Your task to perform on an android device: open the mobile data screen to see how much data has been used Image 0: 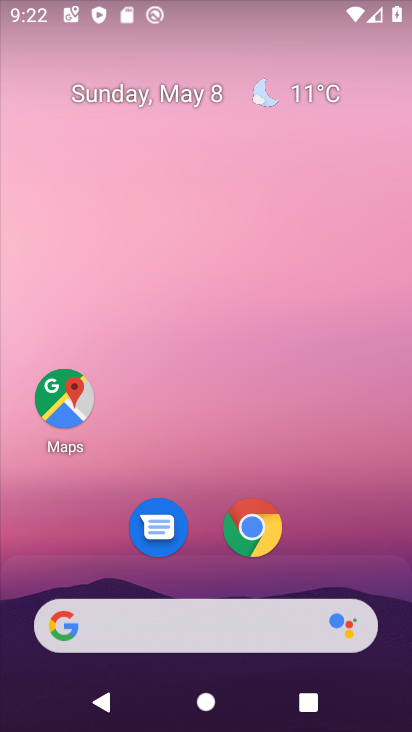
Step 0: drag from (324, 567) to (289, 41)
Your task to perform on an android device: open the mobile data screen to see how much data has been used Image 1: 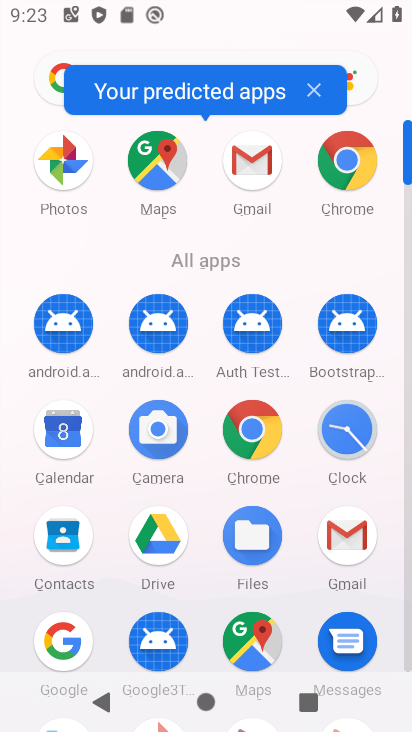
Step 1: drag from (291, 624) to (285, 259)
Your task to perform on an android device: open the mobile data screen to see how much data has been used Image 2: 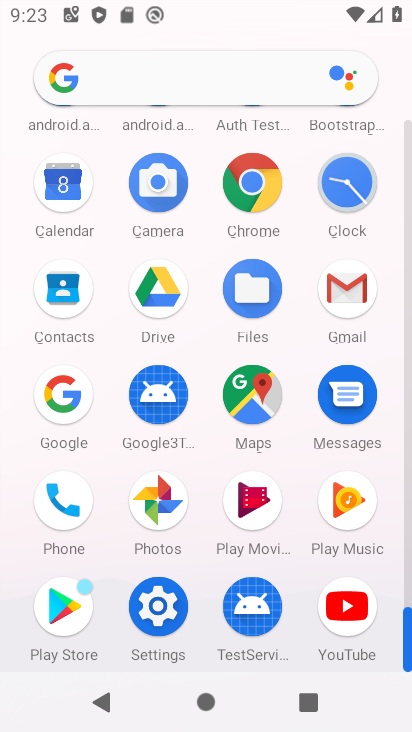
Step 2: drag from (377, 544) to (376, 225)
Your task to perform on an android device: open the mobile data screen to see how much data has been used Image 3: 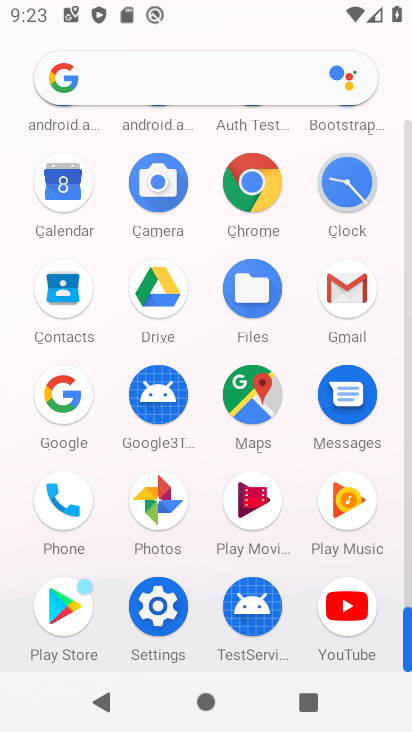
Step 3: drag from (381, 205) to (334, 132)
Your task to perform on an android device: open the mobile data screen to see how much data has been used Image 4: 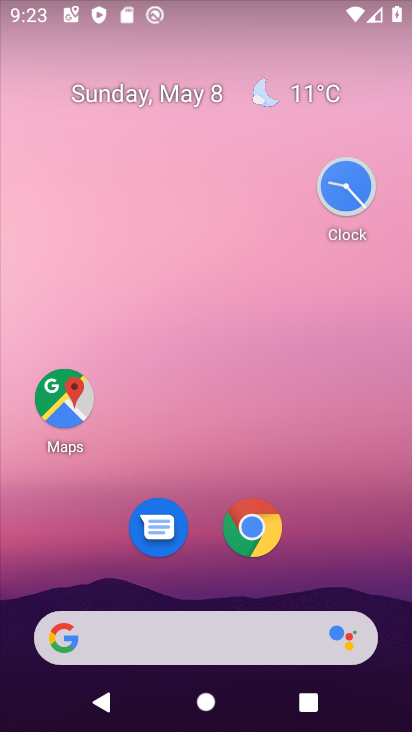
Step 4: drag from (256, 663) to (245, 156)
Your task to perform on an android device: open the mobile data screen to see how much data has been used Image 5: 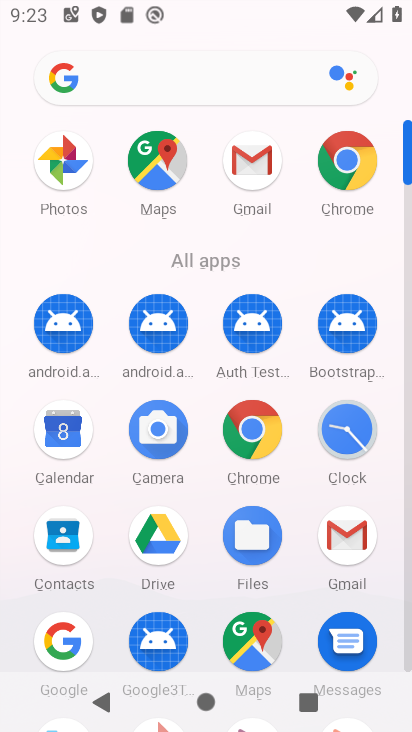
Step 5: drag from (288, 560) to (307, 167)
Your task to perform on an android device: open the mobile data screen to see how much data has been used Image 6: 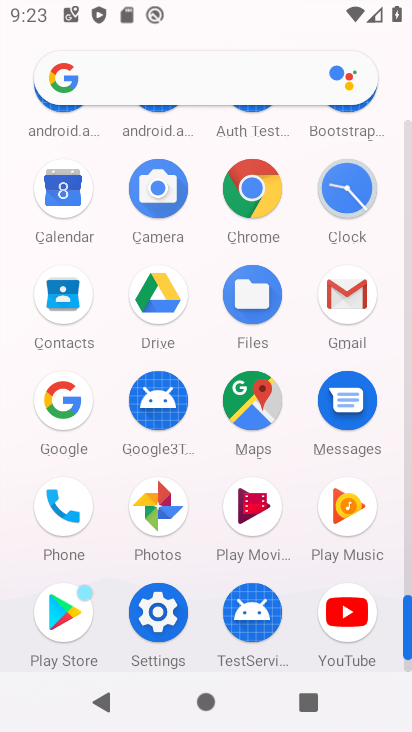
Step 6: click (170, 613)
Your task to perform on an android device: open the mobile data screen to see how much data has been used Image 7: 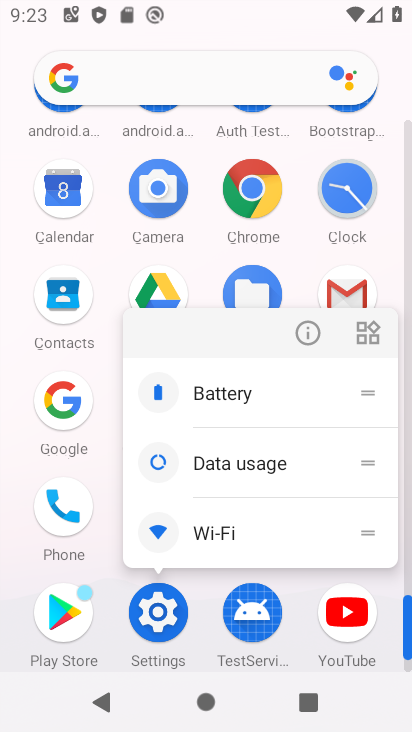
Step 7: click (161, 617)
Your task to perform on an android device: open the mobile data screen to see how much data has been used Image 8: 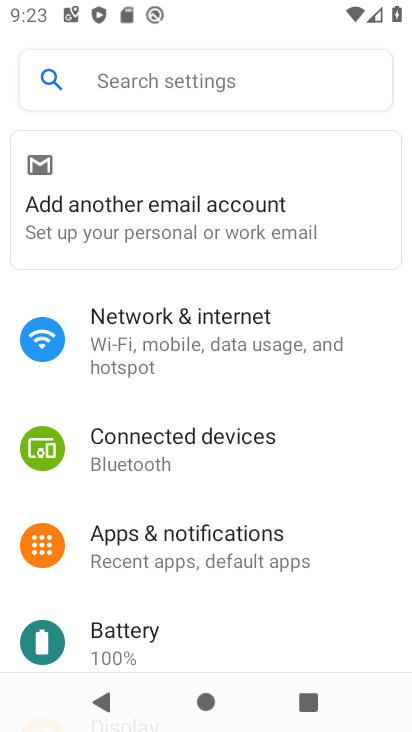
Step 8: click (217, 341)
Your task to perform on an android device: open the mobile data screen to see how much data has been used Image 9: 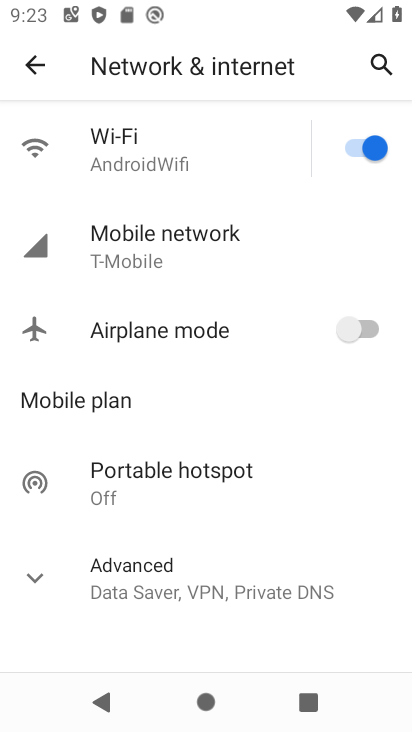
Step 9: click (145, 245)
Your task to perform on an android device: open the mobile data screen to see how much data has been used Image 10: 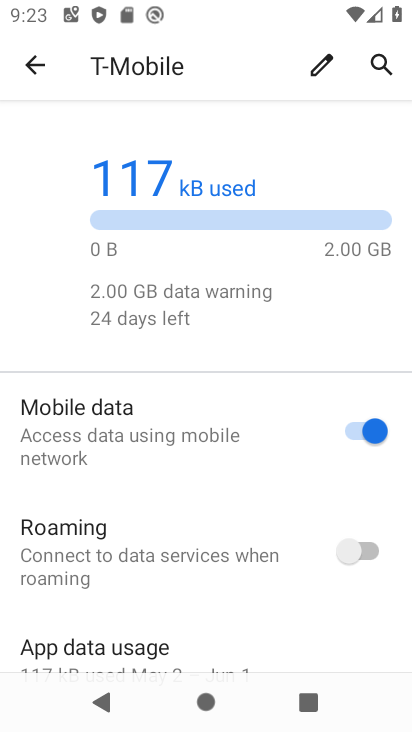
Step 10: drag from (245, 619) to (253, 484)
Your task to perform on an android device: open the mobile data screen to see how much data has been used Image 11: 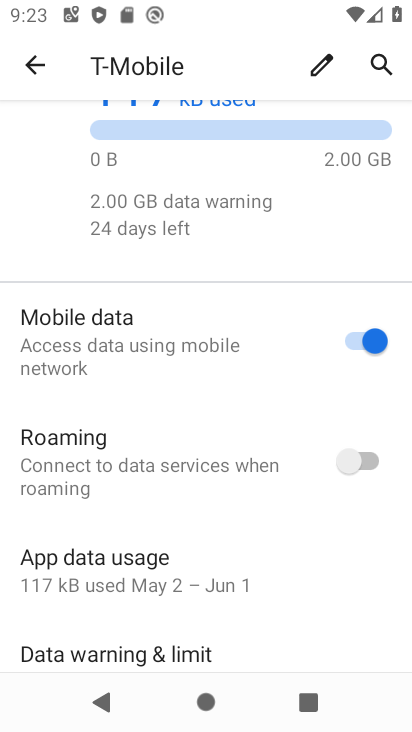
Step 11: click (143, 565)
Your task to perform on an android device: open the mobile data screen to see how much data has been used Image 12: 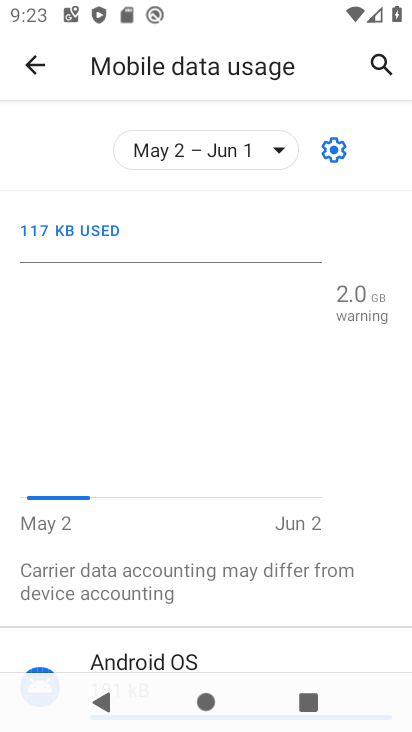
Step 12: task complete